Your task to perform on an android device: turn notification dots on Image 0: 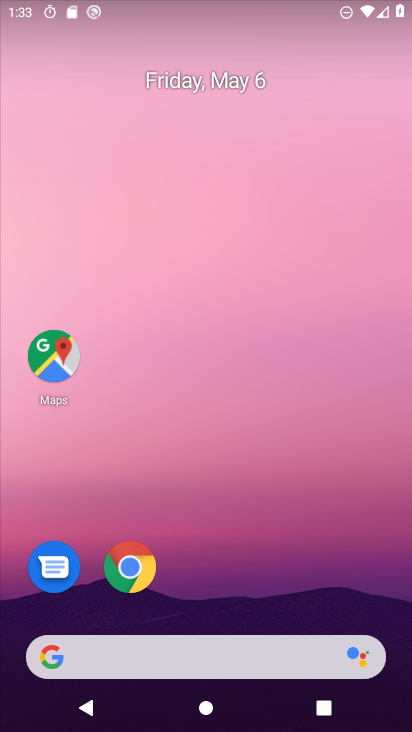
Step 0: drag from (280, 657) to (254, 254)
Your task to perform on an android device: turn notification dots on Image 1: 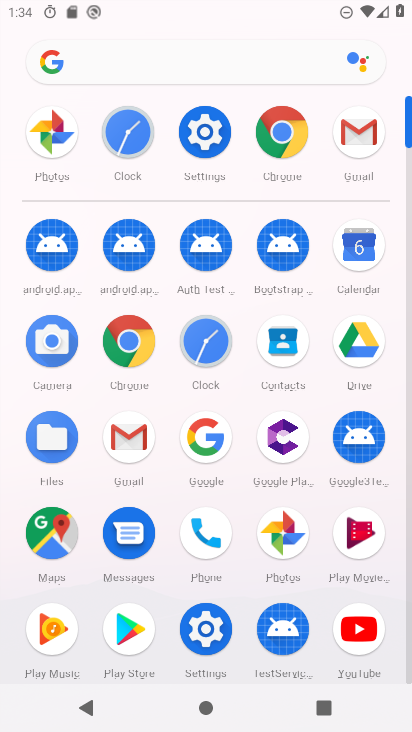
Step 1: click (218, 128)
Your task to perform on an android device: turn notification dots on Image 2: 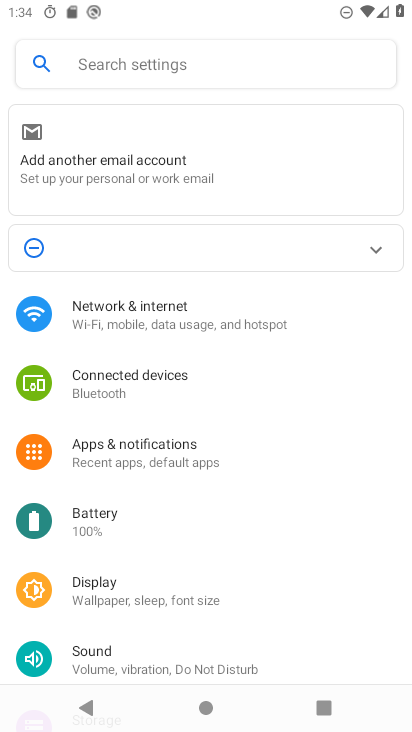
Step 2: click (187, 66)
Your task to perform on an android device: turn notification dots on Image 3: 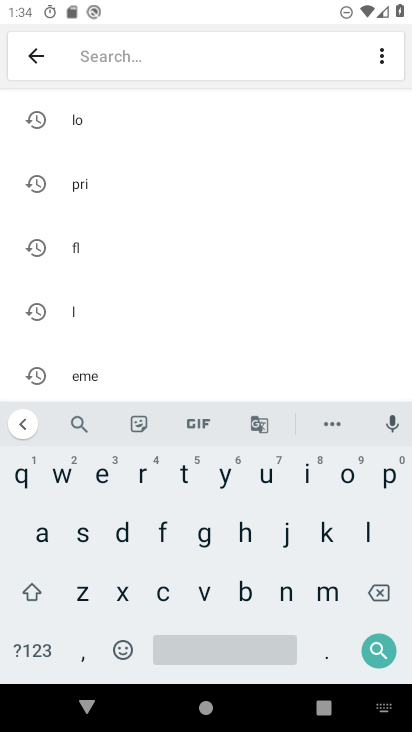
Step 3: click (116, 556)
Your task to perform on an android device: turn notification dots on Image 4: 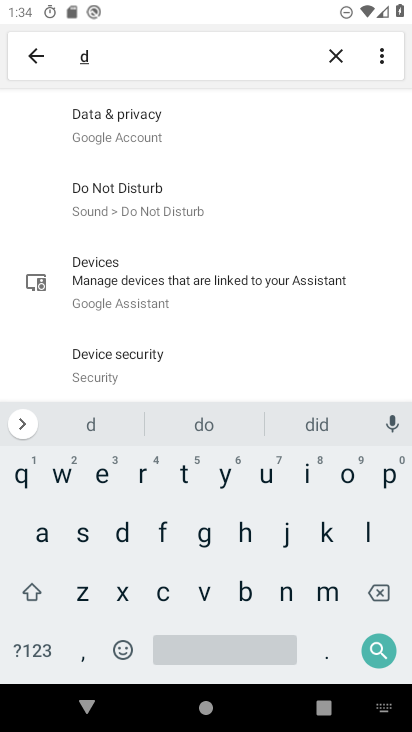
Step 4: click (341, 484)
Your task to perform on an android device: turn notification dots on Image 5: 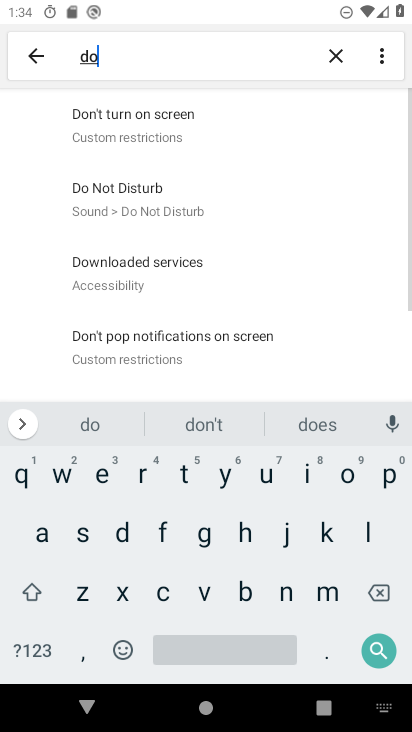
Step 5: click (172, 483)
Your task to perform on an android device: turn notification dots on Image 6: 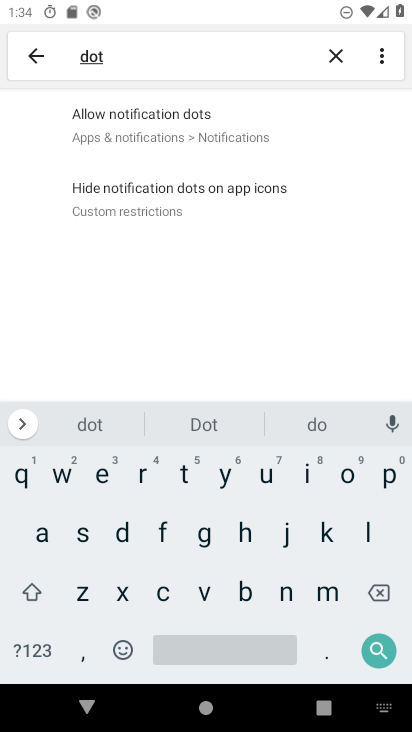
Step 6: click (157, 115)
Your task to perform on an android device: turn notification dots on Image 7: 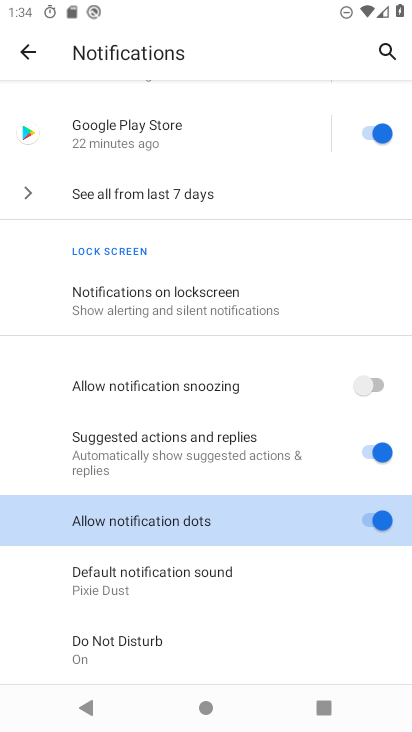
Step 7: click (180, 535)
Your task to perform on an android device: turn notification dots on Image 8: 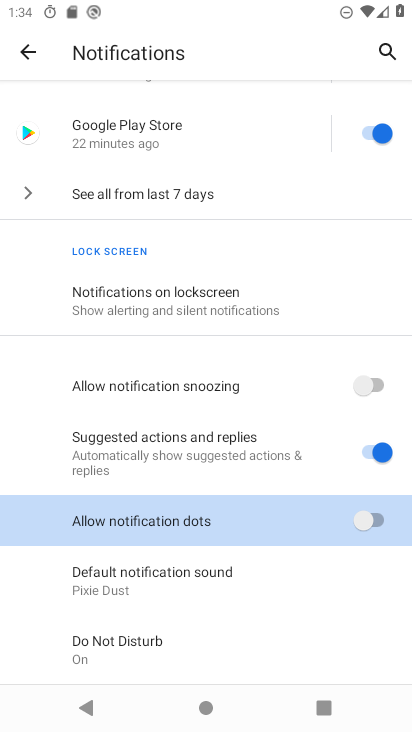
Step 8: click (189, 513)
Your task to perform on an android device: turn notification dots on Image 9: 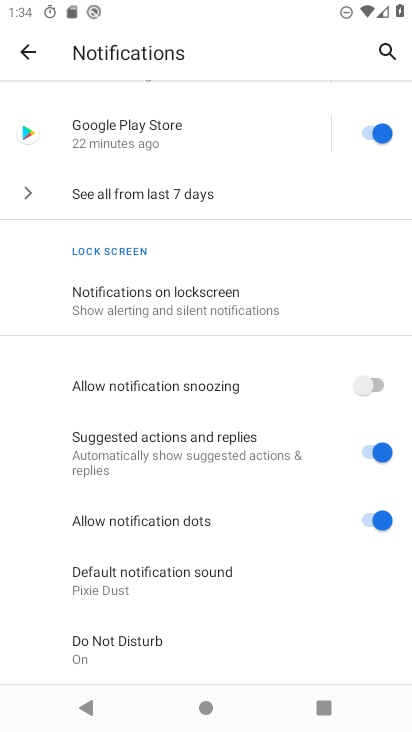
Step 9: task complete